Your task to perform on an android device: Open privacy settings Image 0: 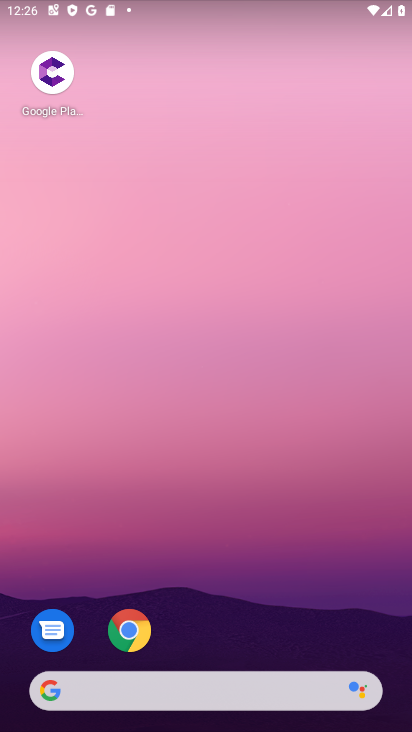
Step 0: drag from (198, 612) to (146, 236)
Your task to perform on an android device: Open privacy settings Image 1: 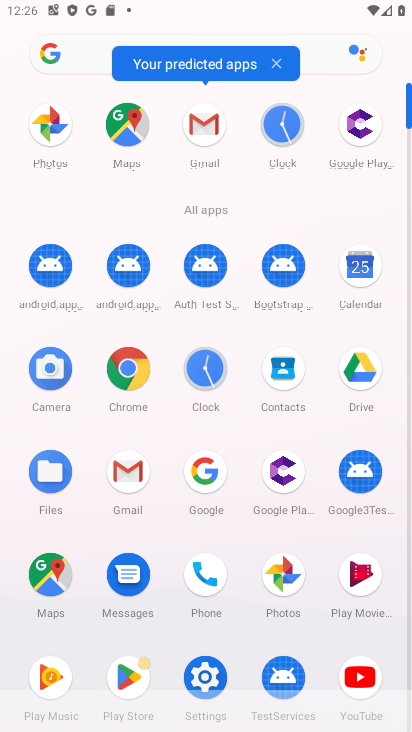
Step 1: click (211, 670)
Your task to perform on an android device: Open privacy settings Image 2: 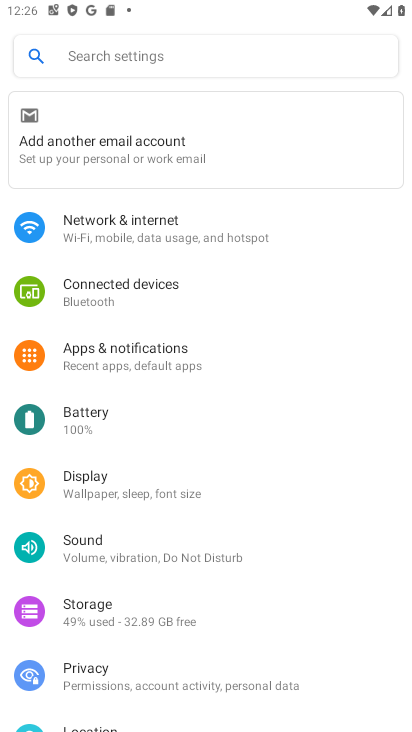
Step 2: click (130, 686)
Your task to perform on an android device: Open privacy settings Image 3: 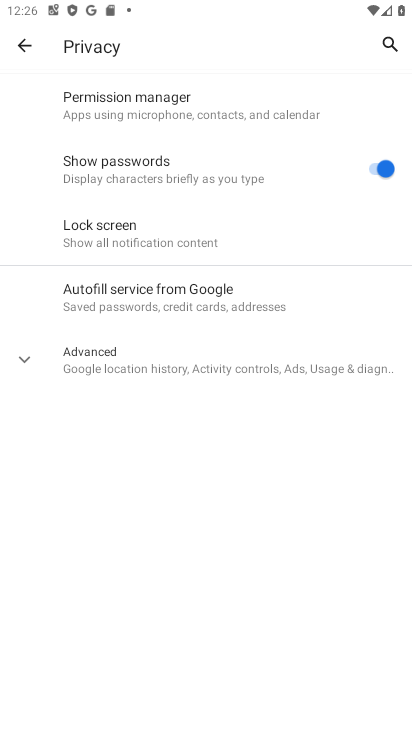
Step 3: task complete